Your task to perform on an android device: What's the weather going to be tomorrow? Image 0: 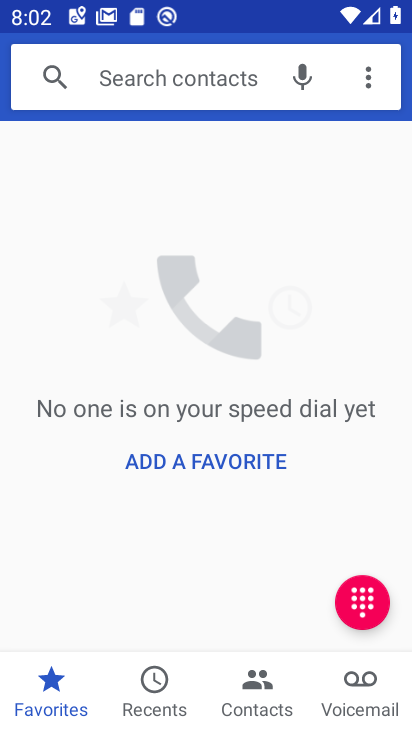
Step 0: press home button
Your task to perform on an android device: What's the weather going to be tomorrow? Image 1: 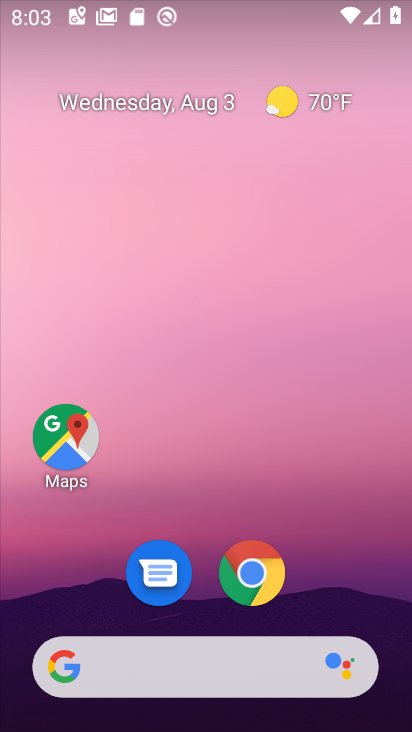
Step 1: click (132, 669)
Your task to perform on an android device: What's the weather going to be tomorrow? Image 2: 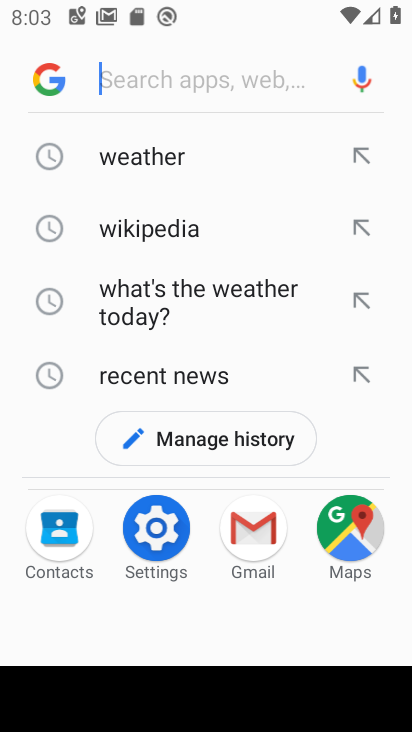
Step 2: click (133, 161)
Your task to perform on an android device: What's the weather going to be tomorrow? Image 3: 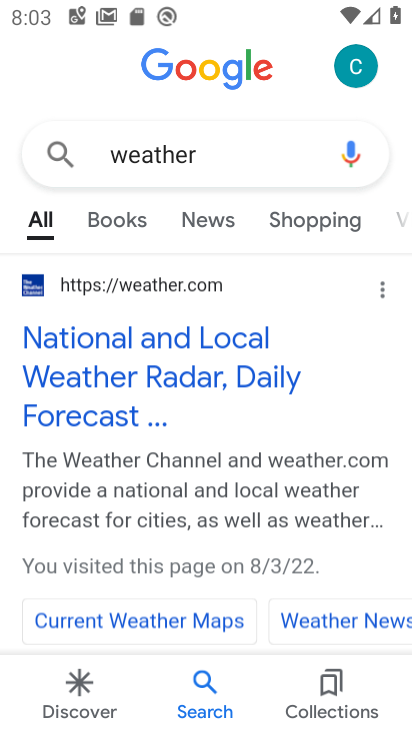
Step 3: click (119, 278)
Your task to perform on an android device: What's the weather going to be tomorrow? Image 4: 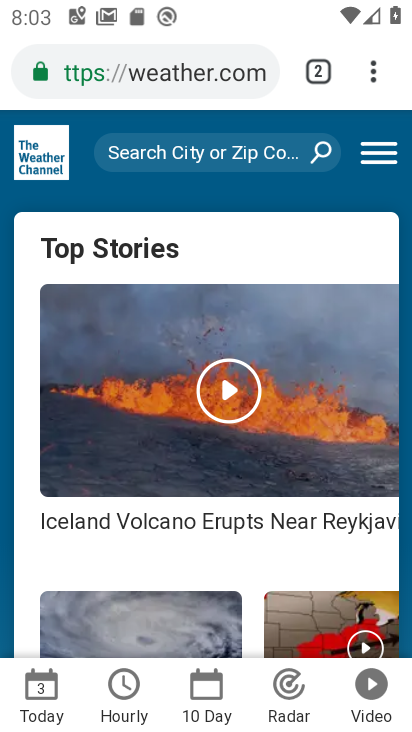
Step 4: click (214, 697)
Your task to perform on an android device: What's the weather going to be tomorrow? Image 5: 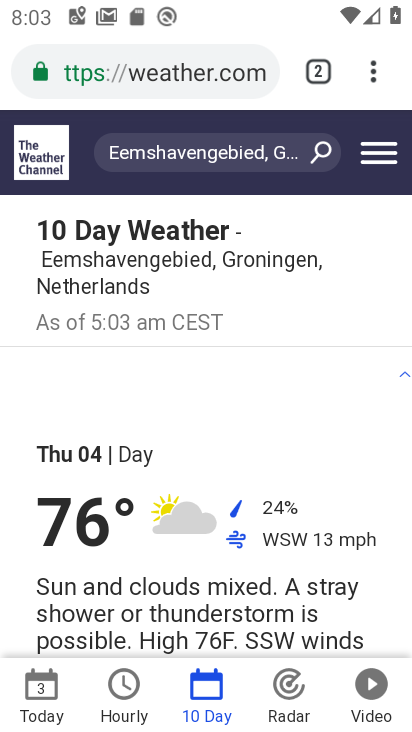
Step 5: task complete